Your task to perform on an android device: turn off airplane mode Image 0: 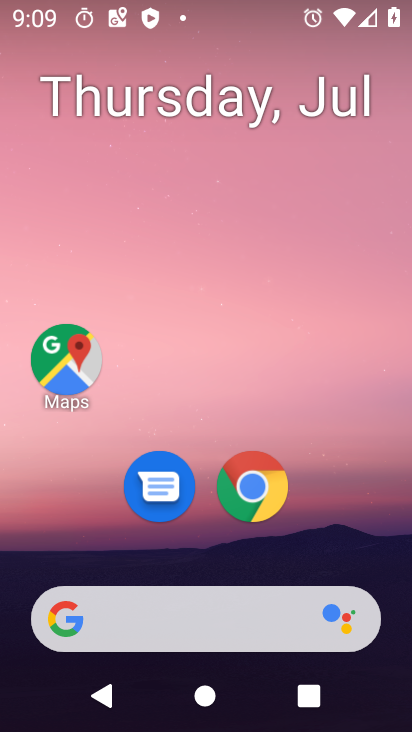
Step 0: drag from (236, 615) to (230, 197)
Your task to perform on an android device: turn off airplane mode Image 1: 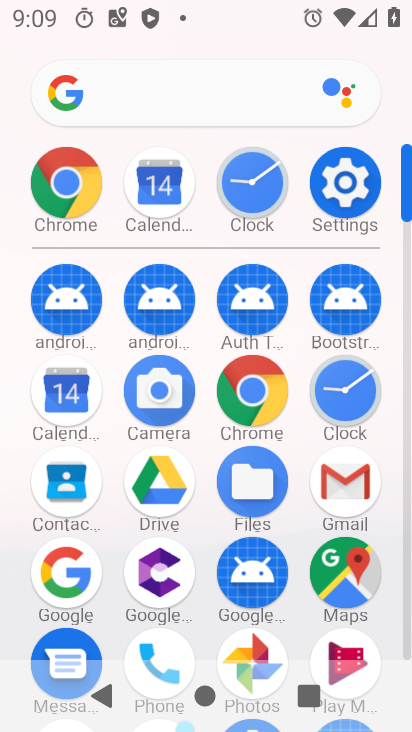
Step 1: click (352, 191)
Your task to perform on an android device: turn off airplane mode Image 2: 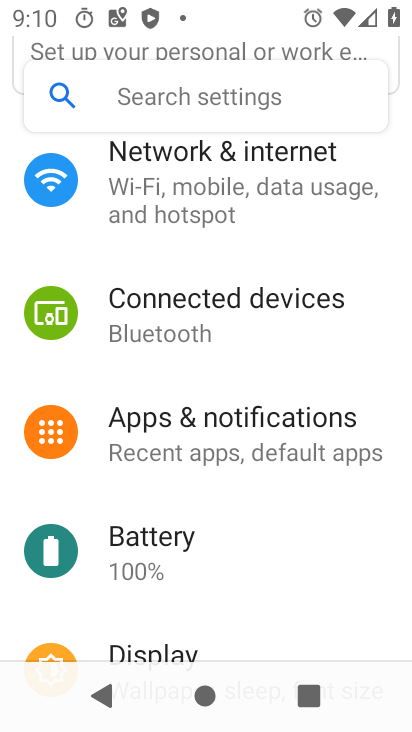
Step 2: drag from (125, 256) to (89, 679)
Your task to perform on an android device: turn off airplane mode Image 3: 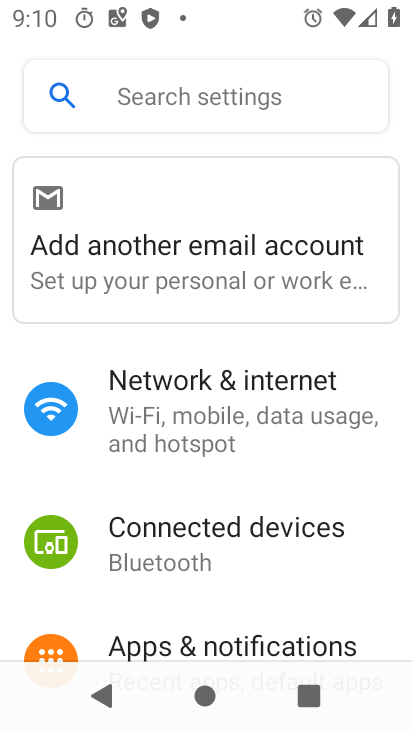
Step 3: click (244, 415)
Your task to perform on an android device: turn off airplane mode Image 4: 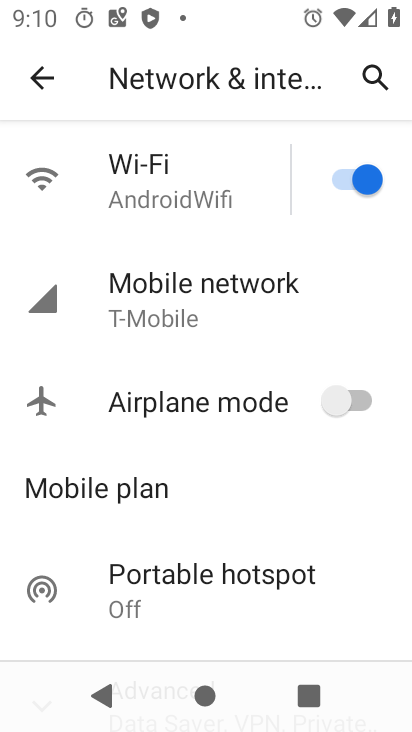
Step 4: task complete